Your task to perform on an android device: open app "Adobe Acrobat Reader" (install if not already installed) Image 0: 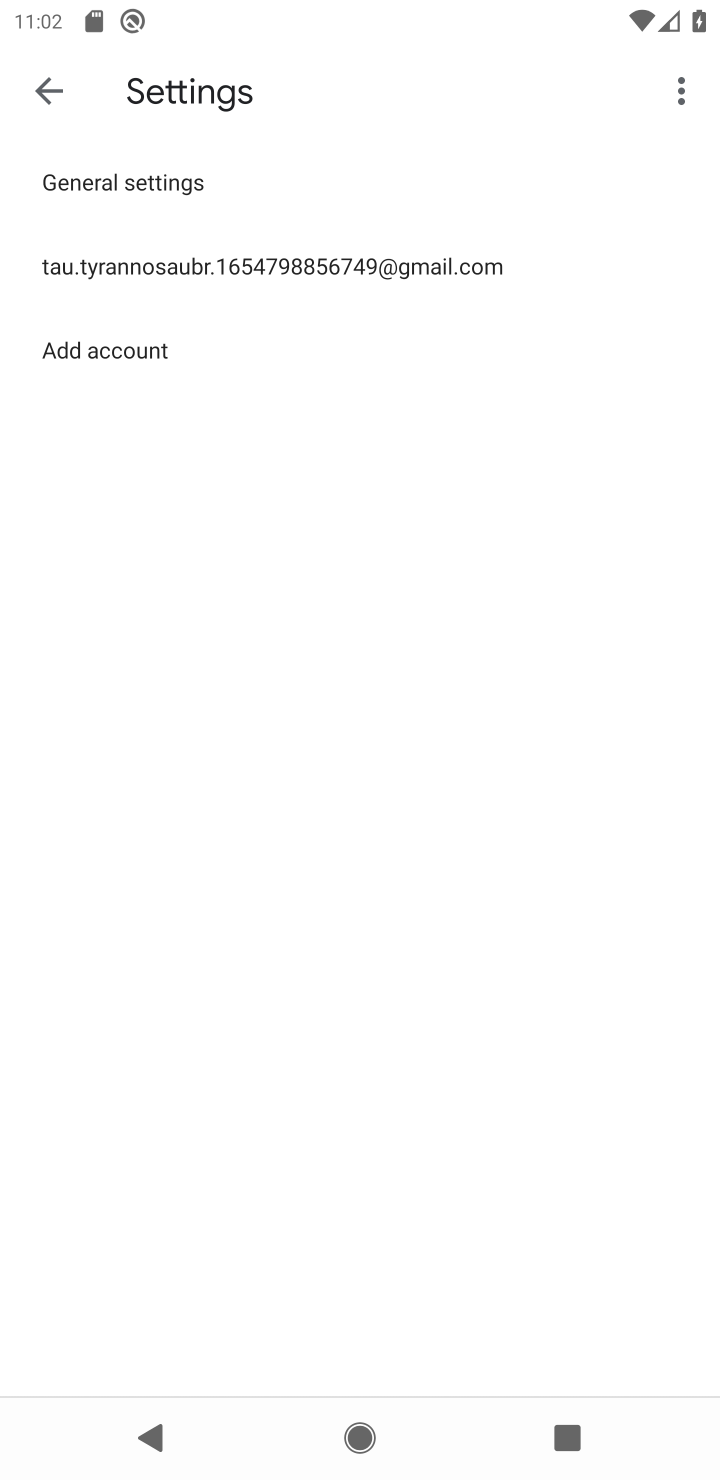
Step 0: press home button
Your task to perform on an android device: open app "Adobe Acrobat Reader" (install if not already installed) Image 1: 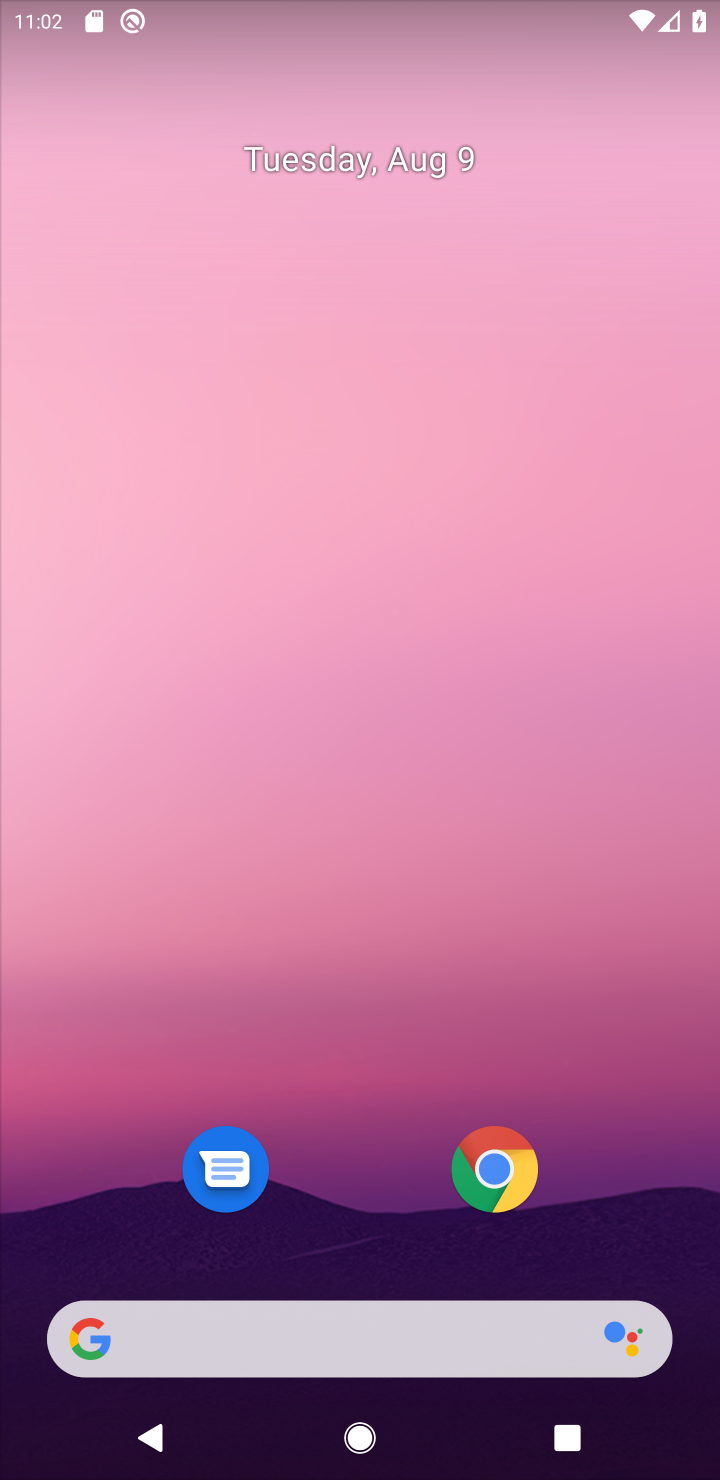
Step 1: drag from (610, 1106) to (672, 93)
Your task to perform on an android device: open app "Adobe Acrobat Reader" (install if not already installed) Image 2: 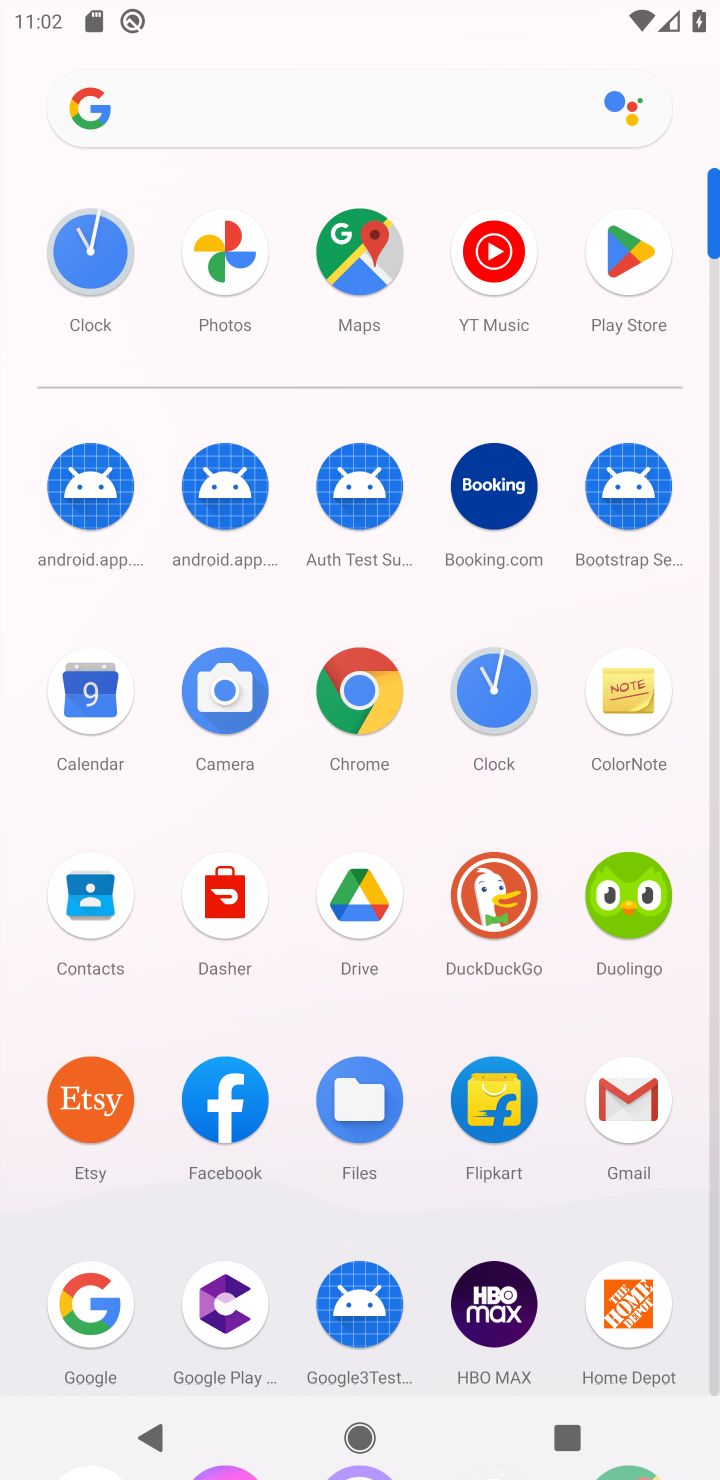
Step 2: click (600, 254)
Your task to perform on an android device: open app "Adobe Acrobat Reader" (install if not already installed) Image 3: 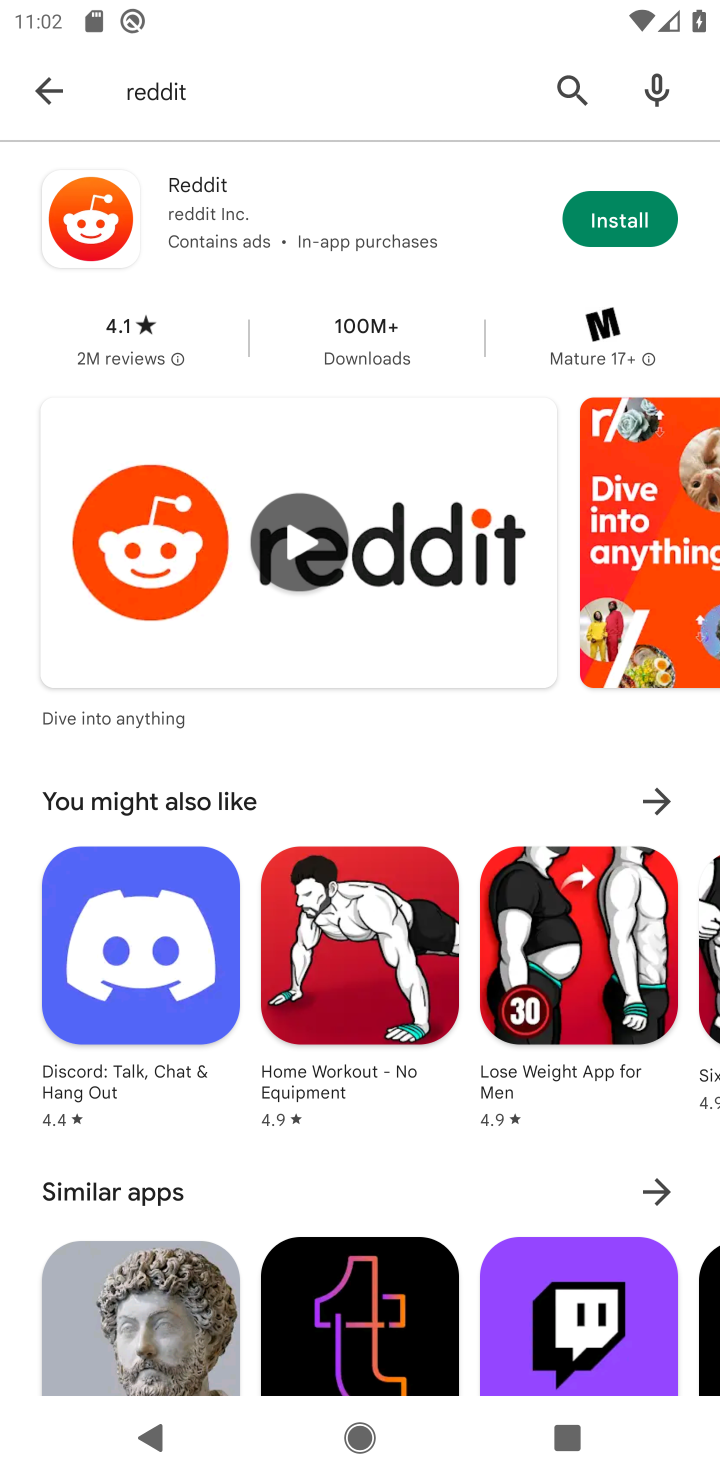
Step 3: click (565, 77)
Your task to perform on an android device: open app "Adobe Acrobat Reader" (install if not already installed) Image 4: 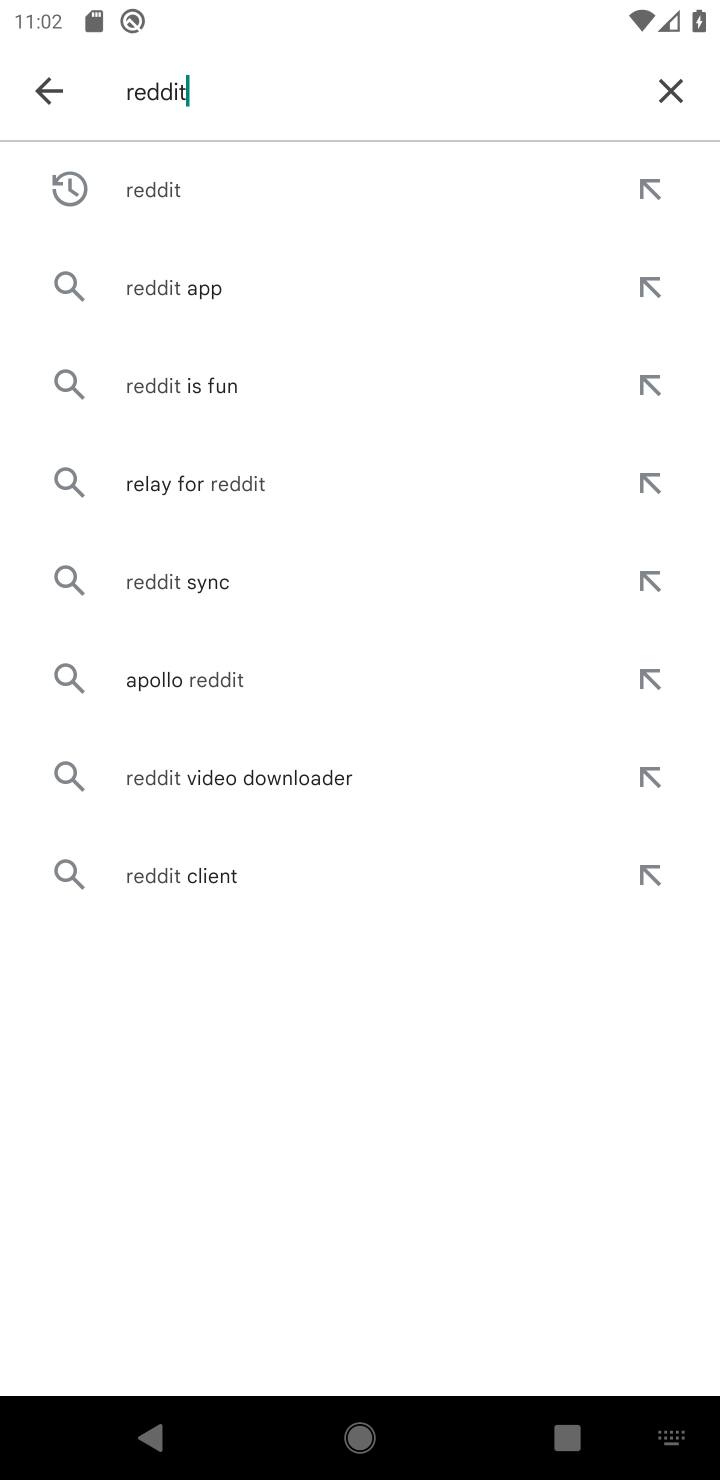
Step 4: click (671, 86)
Your task to perform on an android device: open app "Adobe Acrobat Reader" (install if not already installed) Image 5: 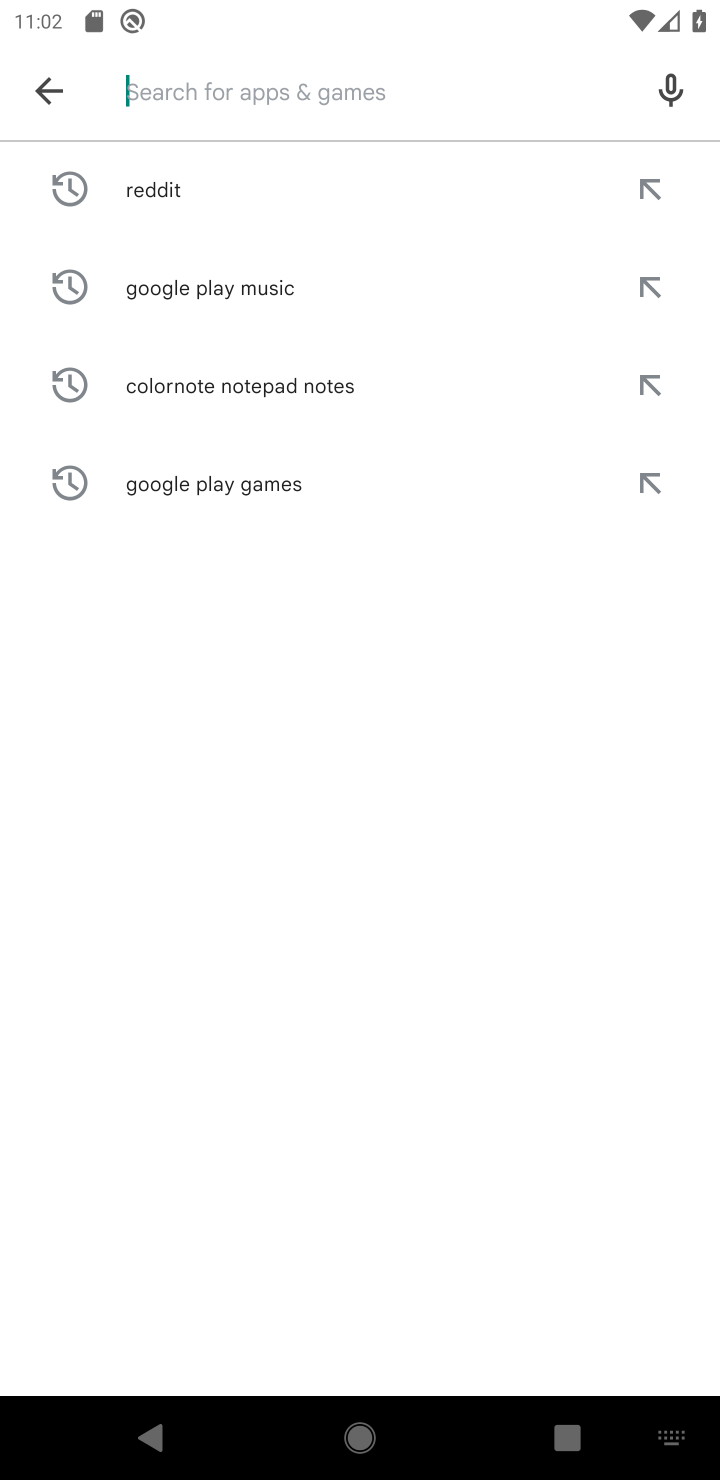
Step 5: type "adobe acrobat reader"
Your task to perform on an android device: open app "Adobe Acrobat Reader" (install if not already installed) Image 6: 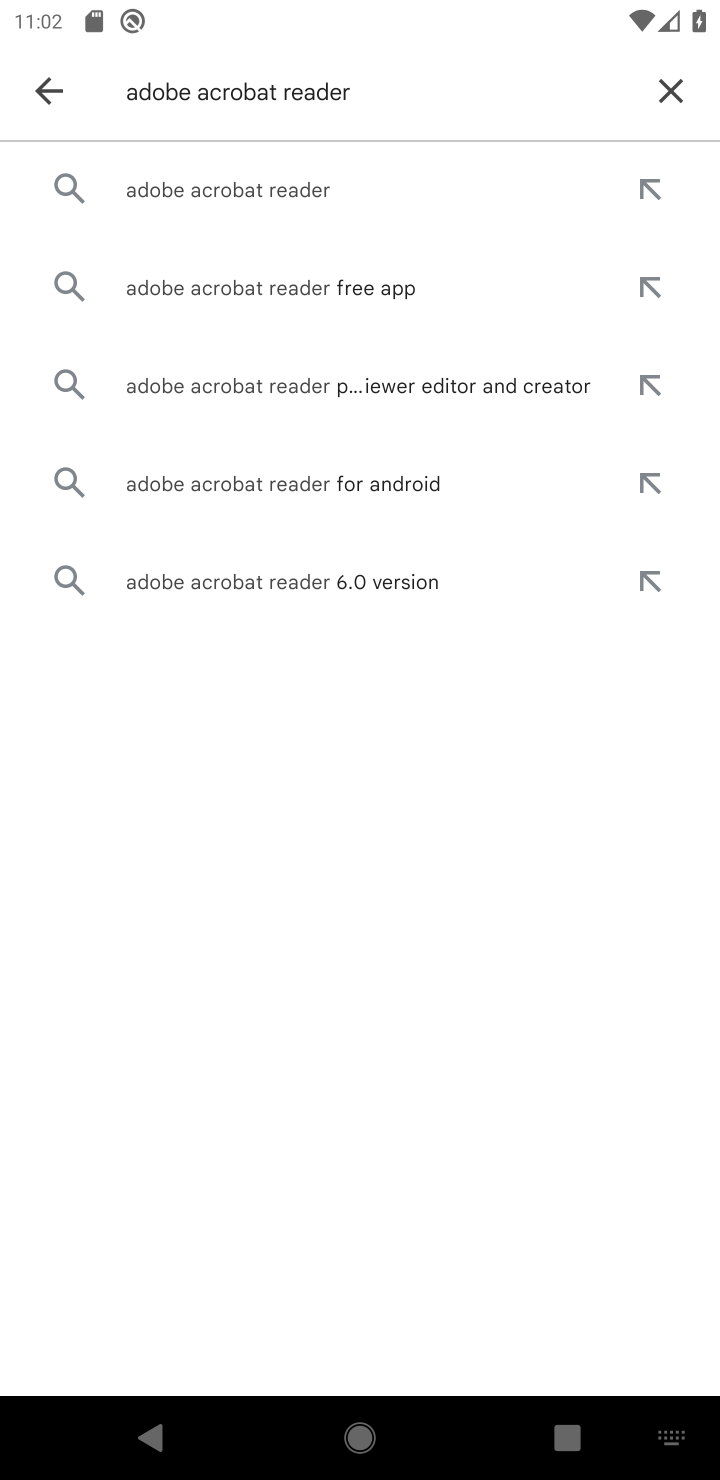
Step 6: click (345, 202)
Your task to perform on an android device: open app "Adobe Acrobat Reader" (install if not already installed) Image 7: 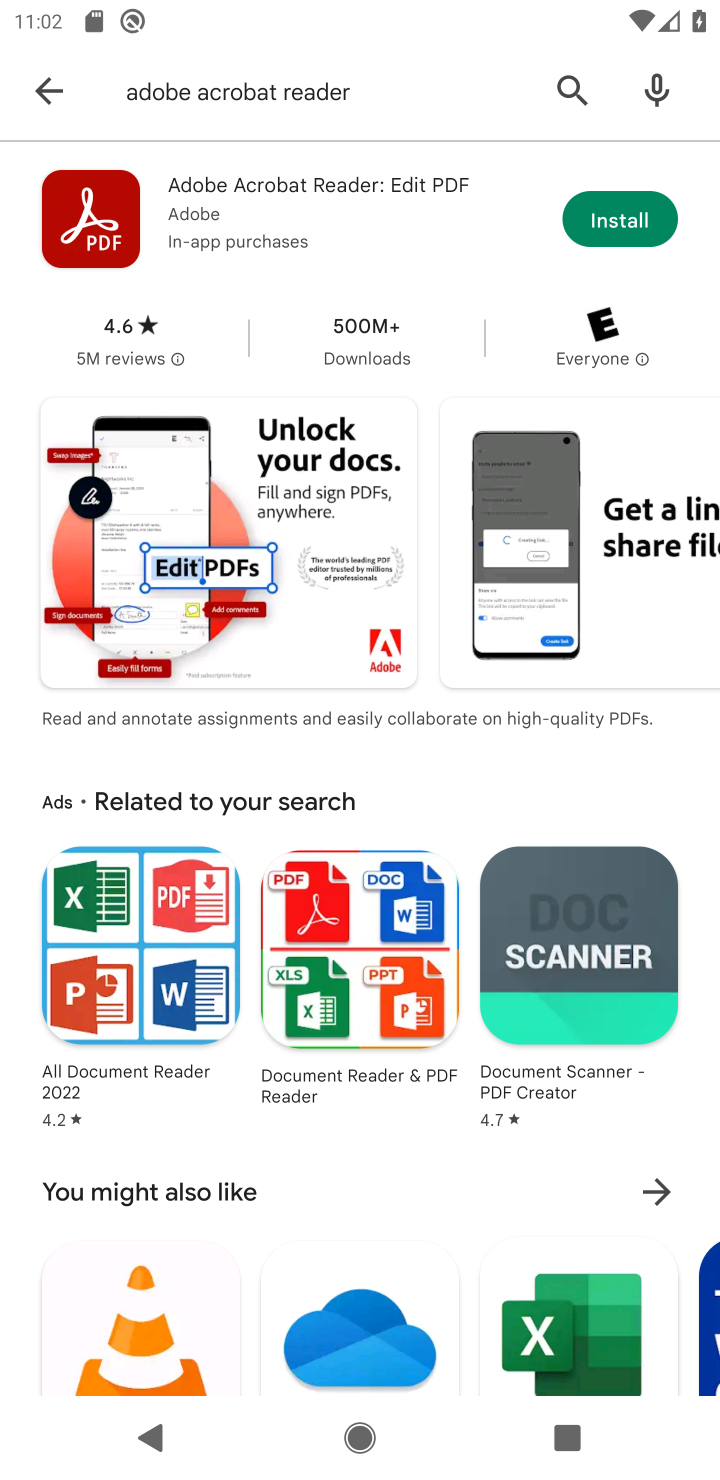
Step 7: click (630, 216)
Your task to perform on an android device: open app "Adobe Acrobat Reader" (install if not already installed) Image 8: 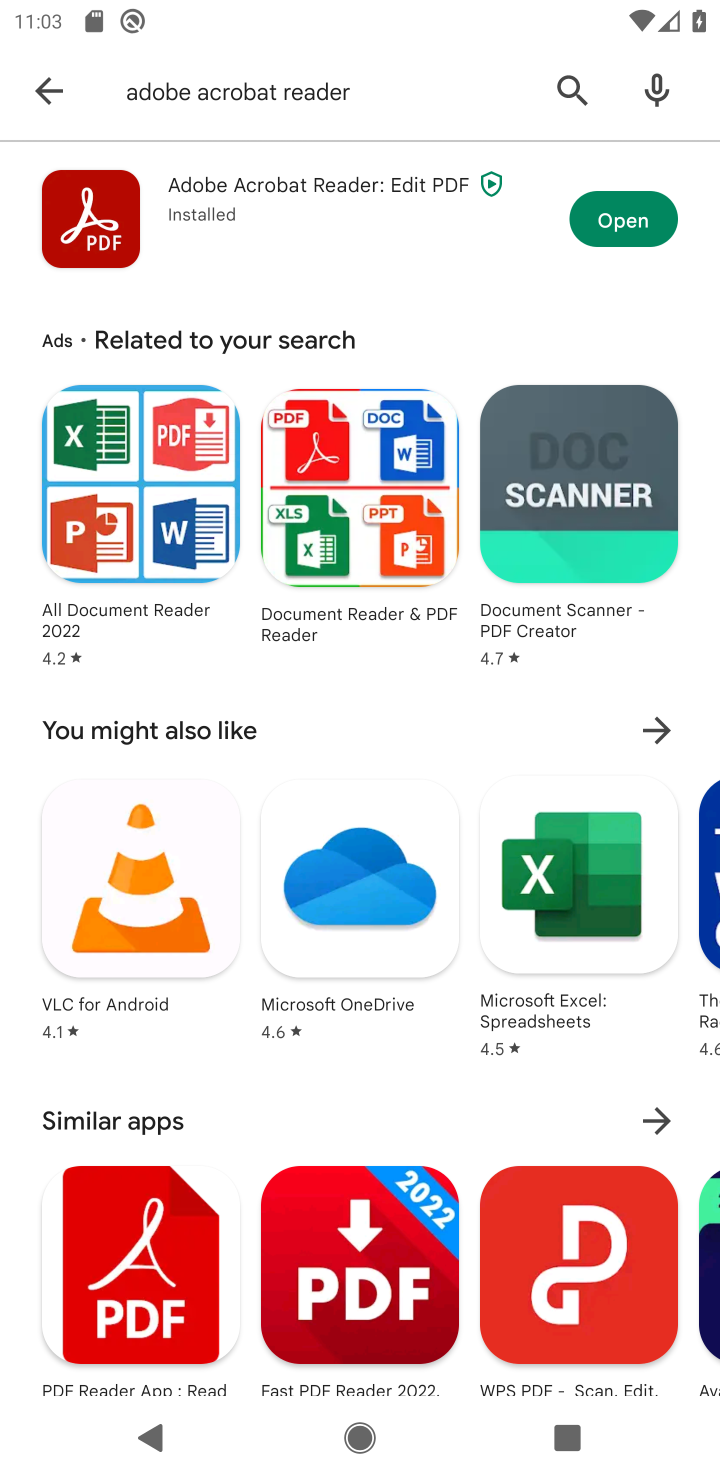
Step 8: click (628, 205)
Your task to perform on an android device: open app "Adobe Acrobat Reader" (install if not already installed) Image 9: 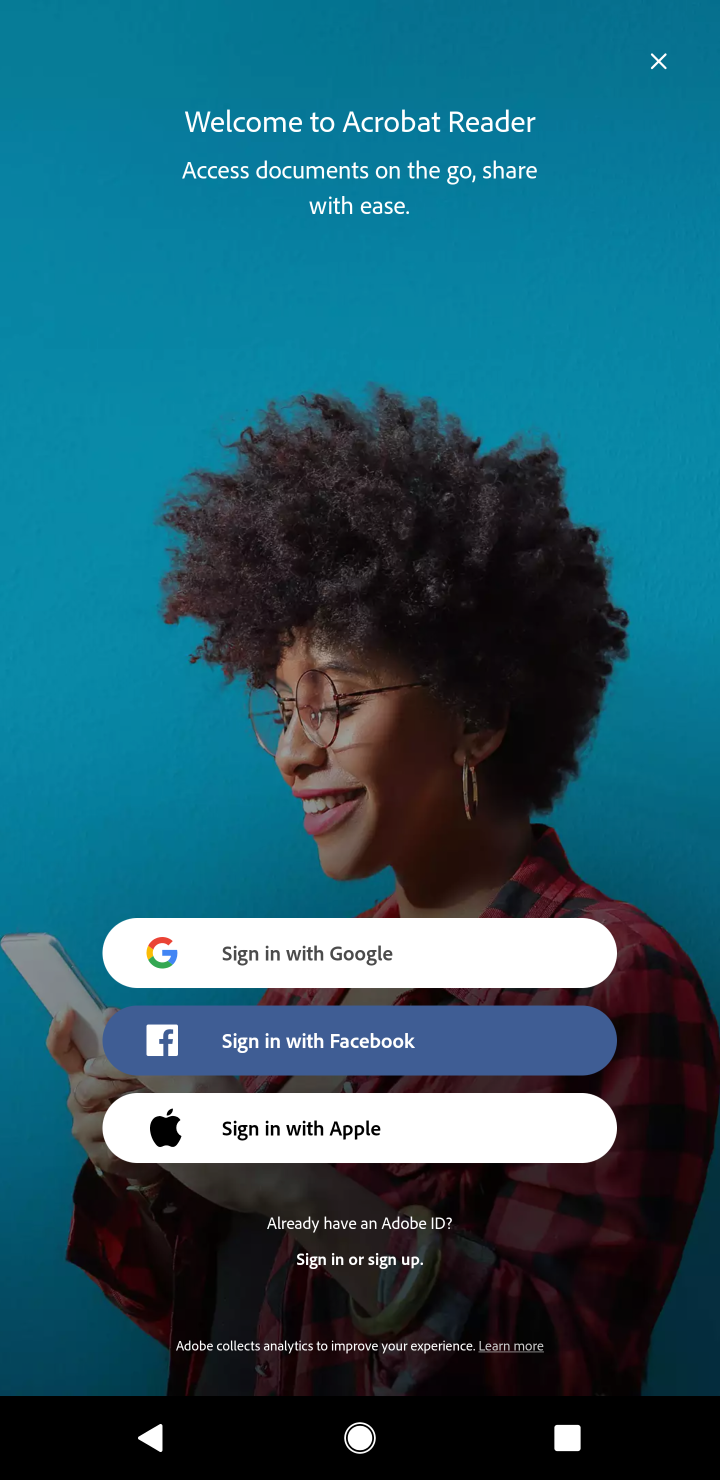
Step 9: task complete